Your task to perform on an android device: Add macbook air to the cart on amazon.com, then select checkout. Image 0: 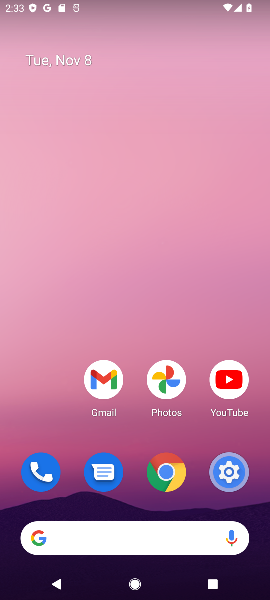
Step 0: click (141, 549)
Your task to perform on an android device: Add macbook air to the cart on amazon.com, then select checkout. Image 1: 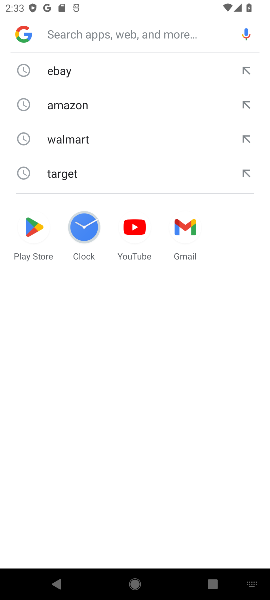
Step 1: click (94, 110)
Your task to perform on an android device: Add macbook air to the cart on amazon.com, then select checkout. Image 2: 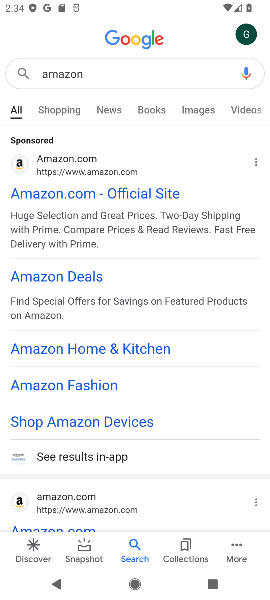
Step 2: click (108, 199)
Your task to perform on an android device: Add macbook air to the cart on amazon.com, then select checkout. Image 3: 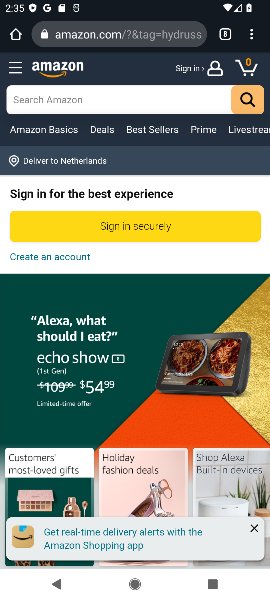
Step 3: task complete